Your task to perform on an android device: turn on showing notifications on the lock screen Image 0: 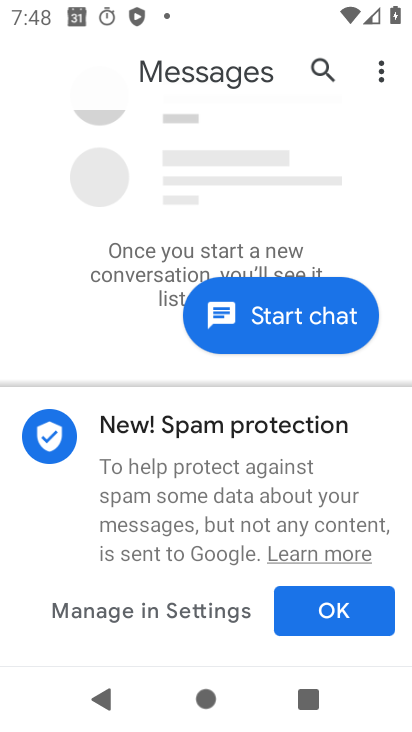
Step 0: press home button
Your task to perform on an android device: turn on showing notifications on the lock screen Image 1: 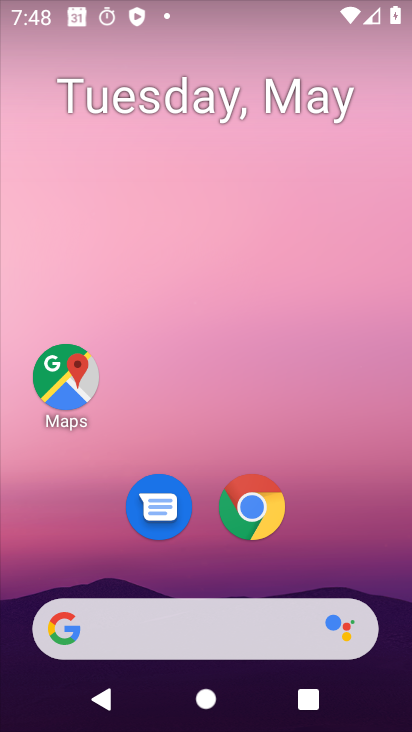
Step 1: drag from (329, 560) to (327, 50)
Your task to perform on an android device: turn on showing notifications on the lock screen Image 2: 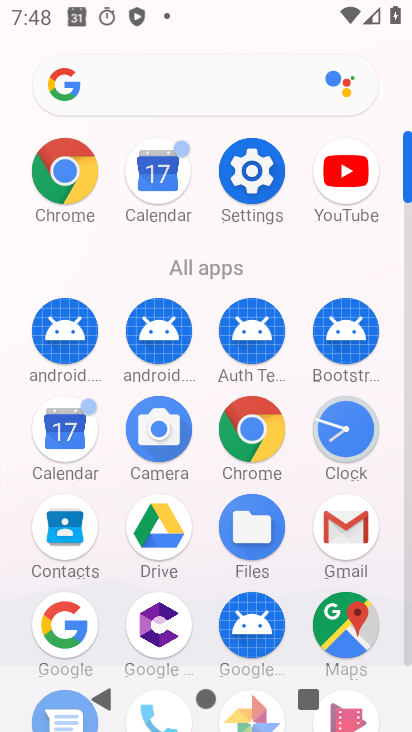
Step 2: click (246, 180)
Your task to perform on an android device: turn on showing notifications on the lock screen Image 3: 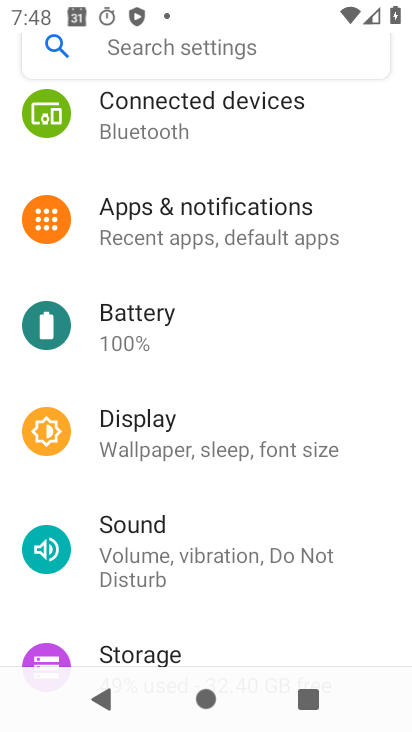
Step 3: click (188, 235)
Your task to perform on an android device: turn on showing notifications on the lock screen Image 4: 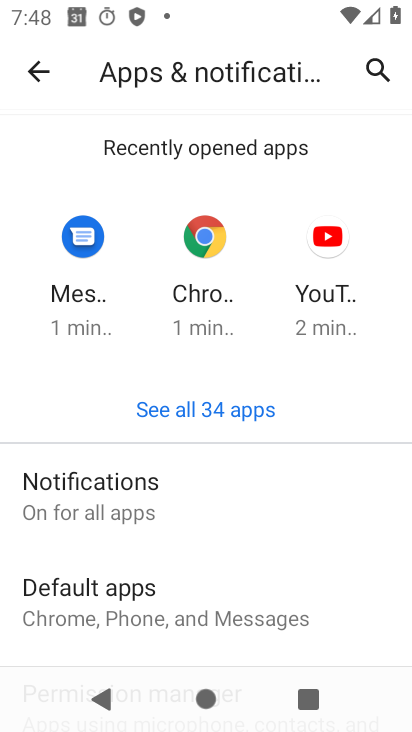
Step 4: click (141, 485)
Your task to perform on an android device: turn on showing notifications on the lock screen Image 5: 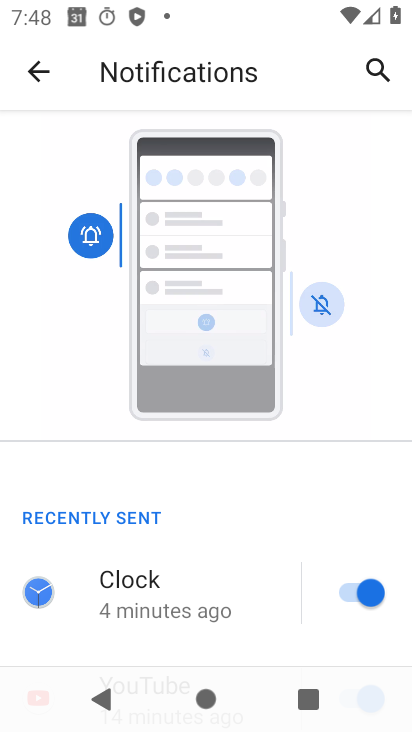
Step 5: drag from (152, 562) to (178, 140)
Your task to perform on an android device: turn on showing notifications on the lock screen Image 6: 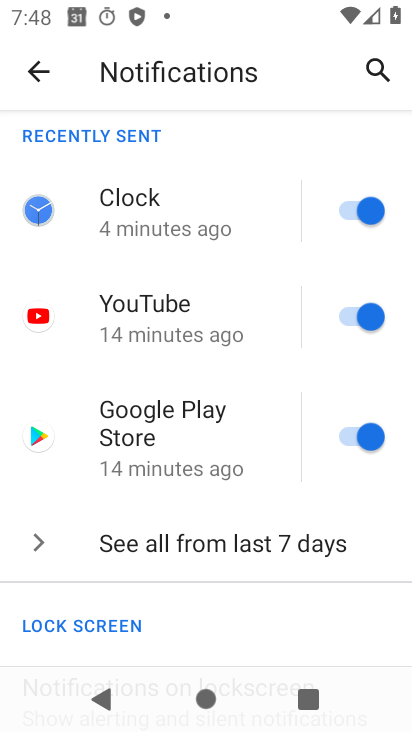
Step 6: drag from (167, 622) to (223, 294)
Your task to perform on an android device: turn on showing notifications on the lock screen Image 7: 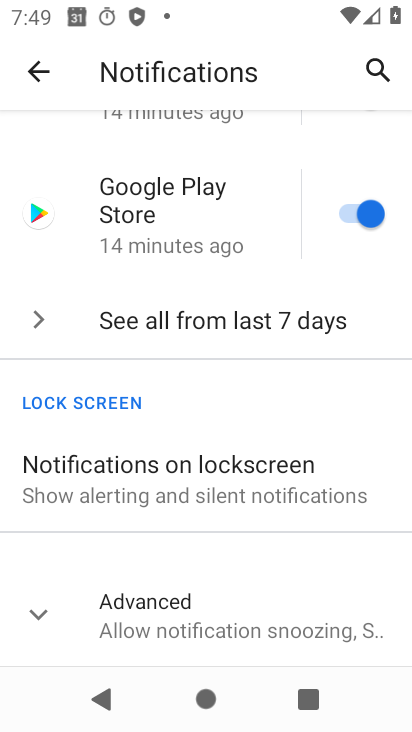
Step 7: click (211, 471)
Your task to perform on an android device: turn on showing notifications on the lock screen Image 8: 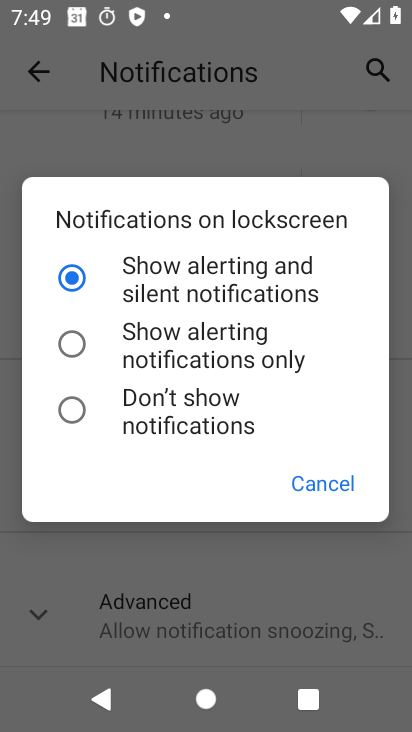
Step 8: click (207, 287)
Your task to perform on an android device: turn on showing notifications on the lock screen Image 9: 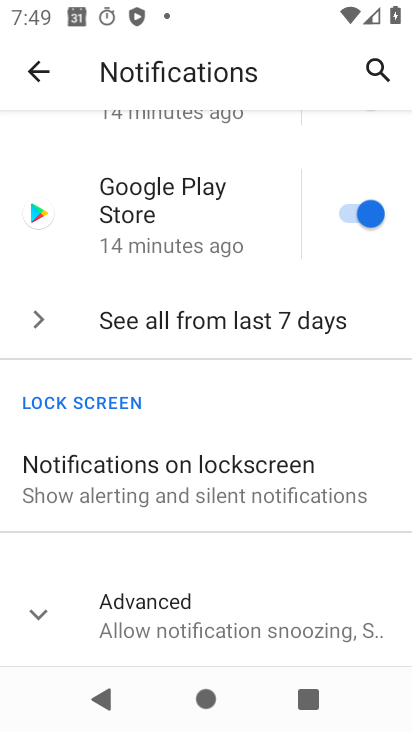
Step 9: task complete